Your task to perform on an android device: allow cookies in the chrome app Image 0: 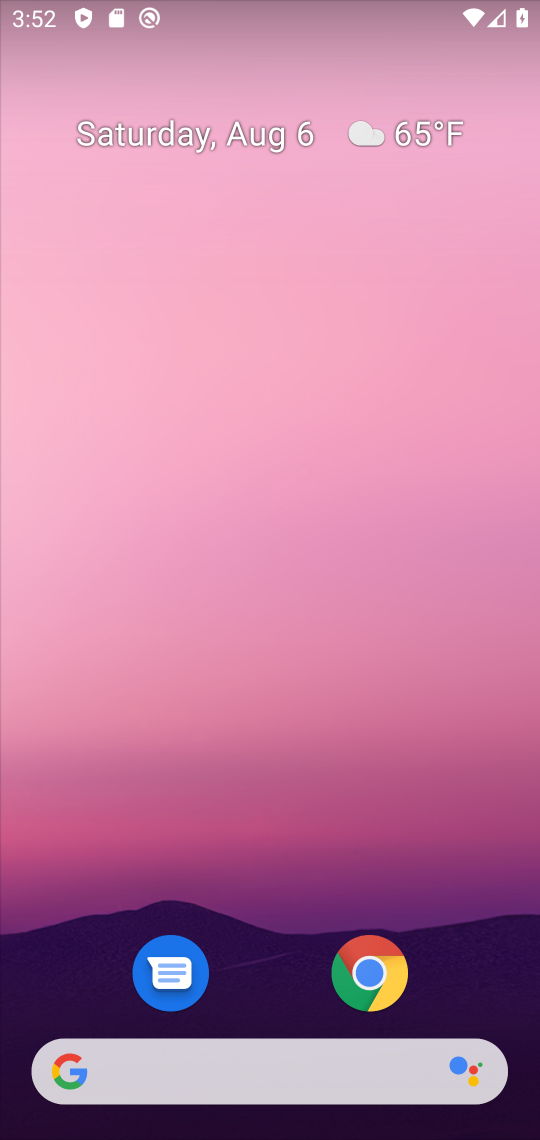
Step 0: drag from (454, 890) to (412, 158)
Your task to perform on an android device: allow cookies in the chrome app Image 1: 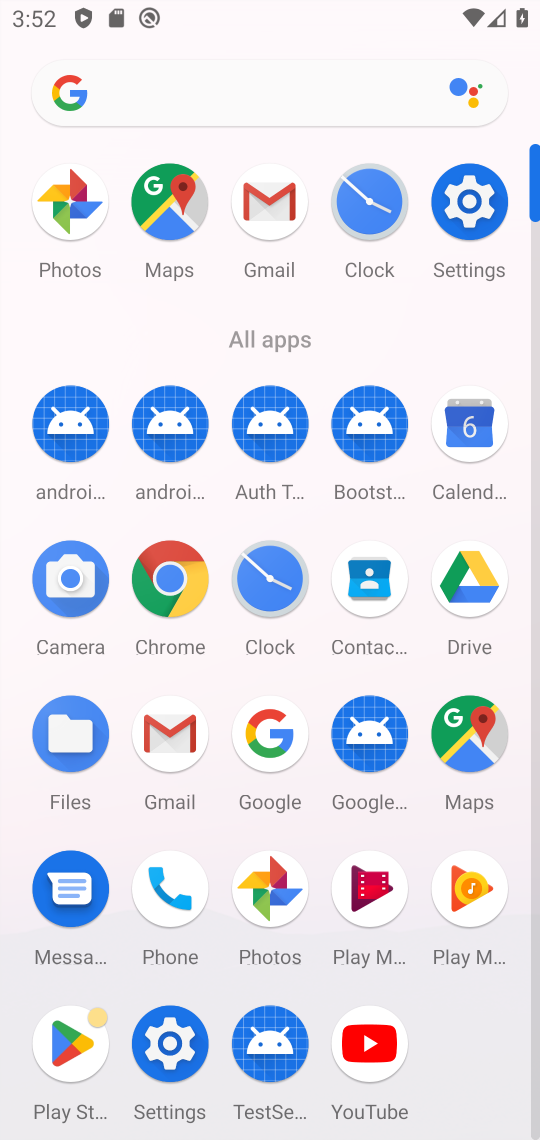
Step 1: click (173, 584)
Your task to perform on an android device: allow cookies in the chrome app Image 2: 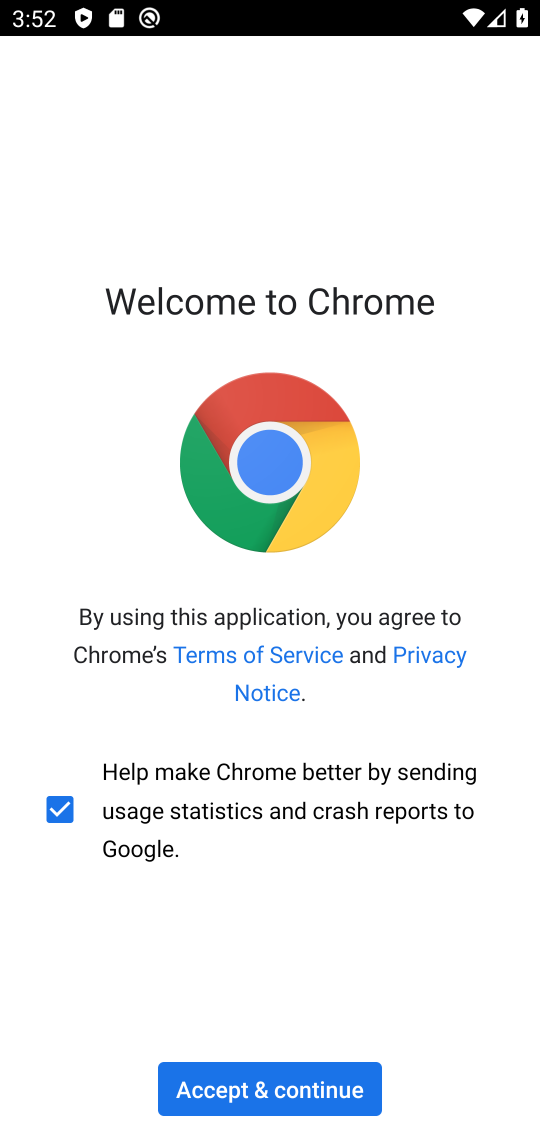
Step 2: click (291, 1094)
Your task to perform on an android device: allow cookies in the chrome app Image 3: 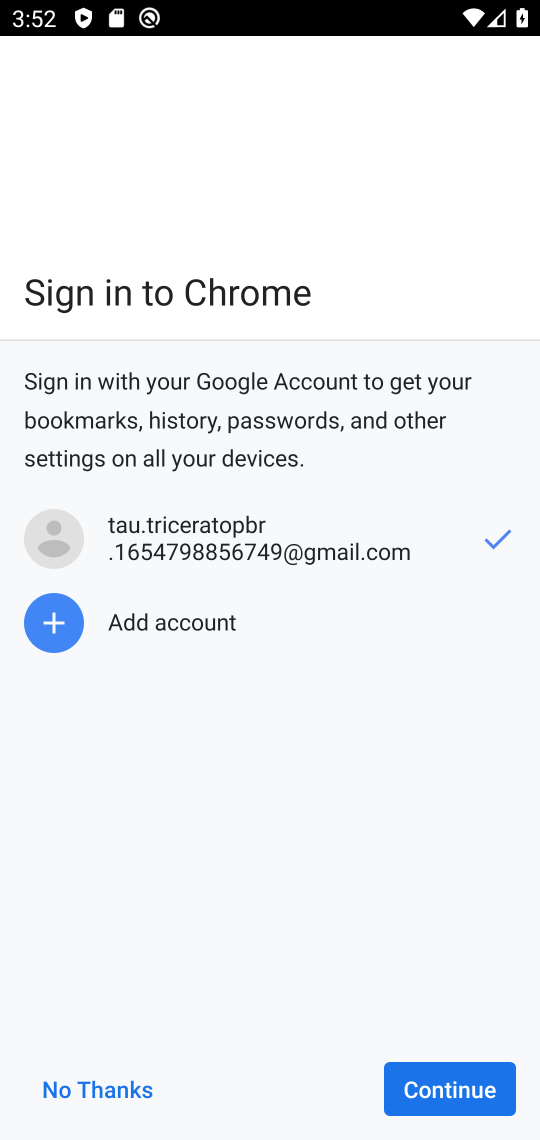
Step 3: click (433, 1113)
Your task to perform on an android device: allow cookies in the chrome app Image 4: 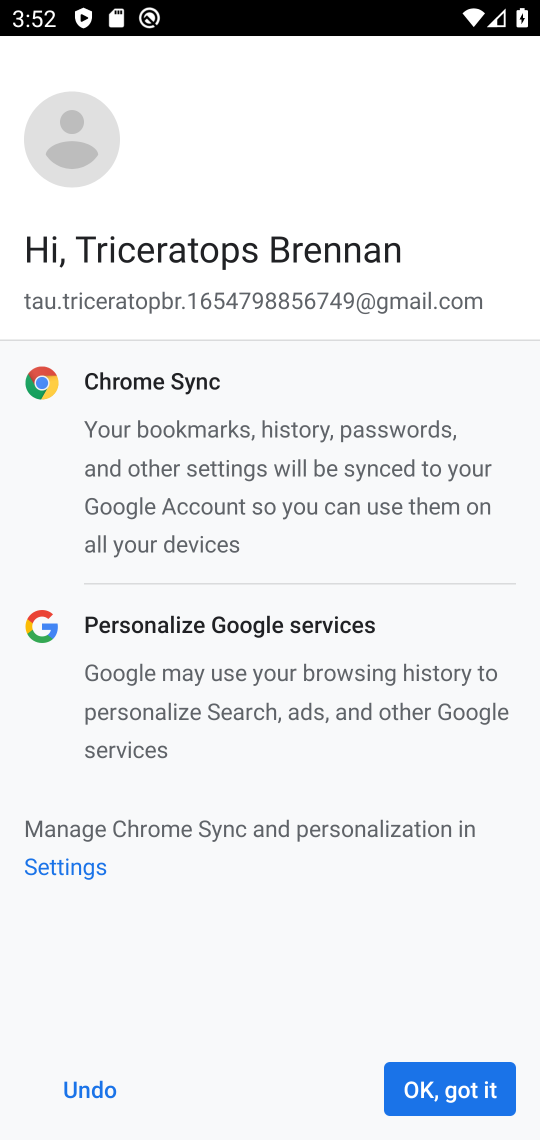
Step 4: click (438, 1097)
Your task to perform on an android device: allow cookies in the chrome app Image 5: 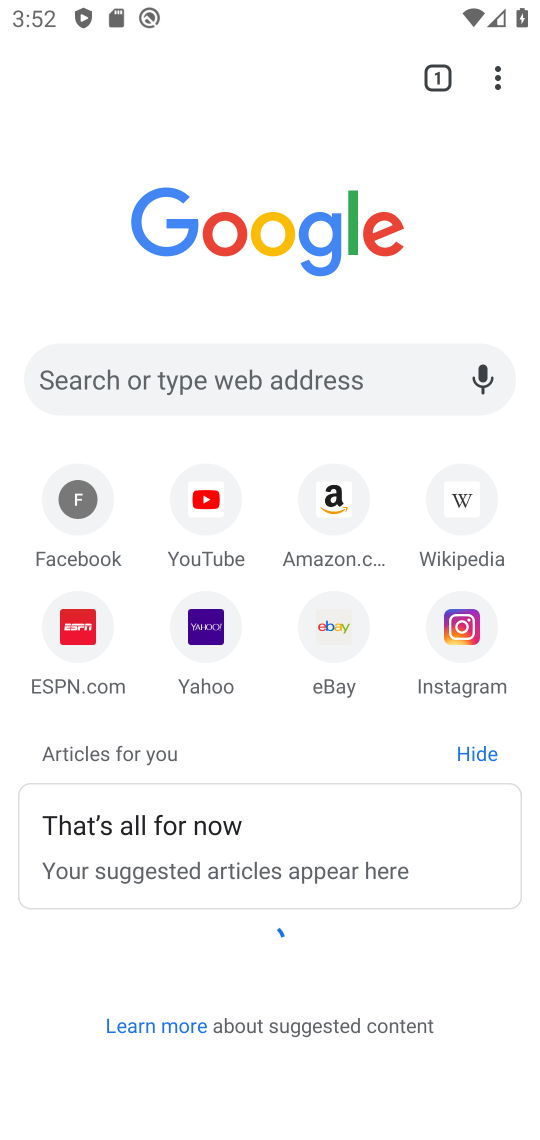
Step 5: drag from (507, 54) to (248, 658)
Your task to perform on an android device: allow cookies in the chrome app Image 6: 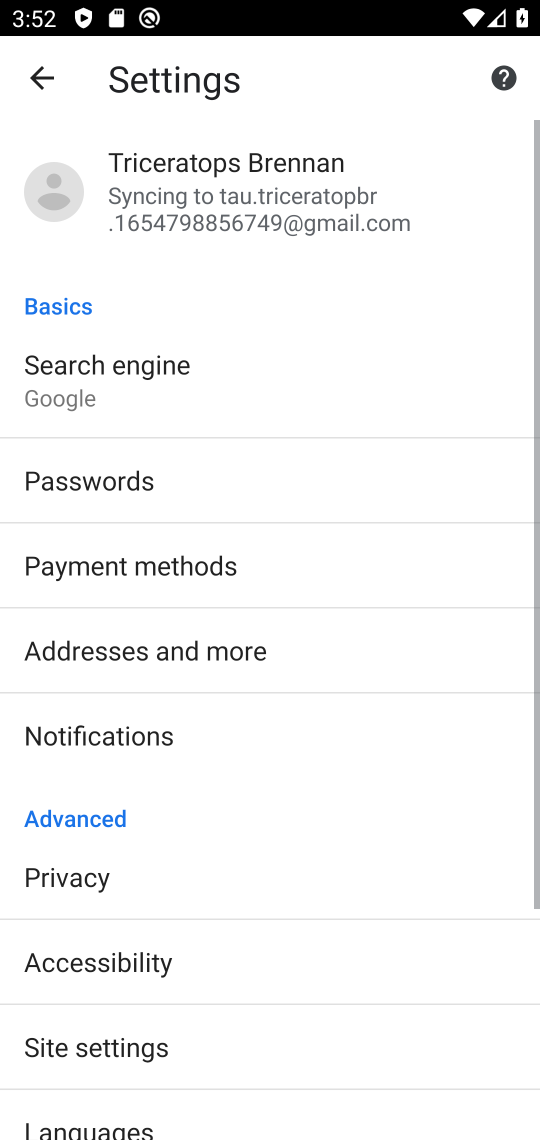
Step 6: drag from (349, 566) to (415, 28)
Your task to perform on an android device: allow cookies in the chrome app Image 7: 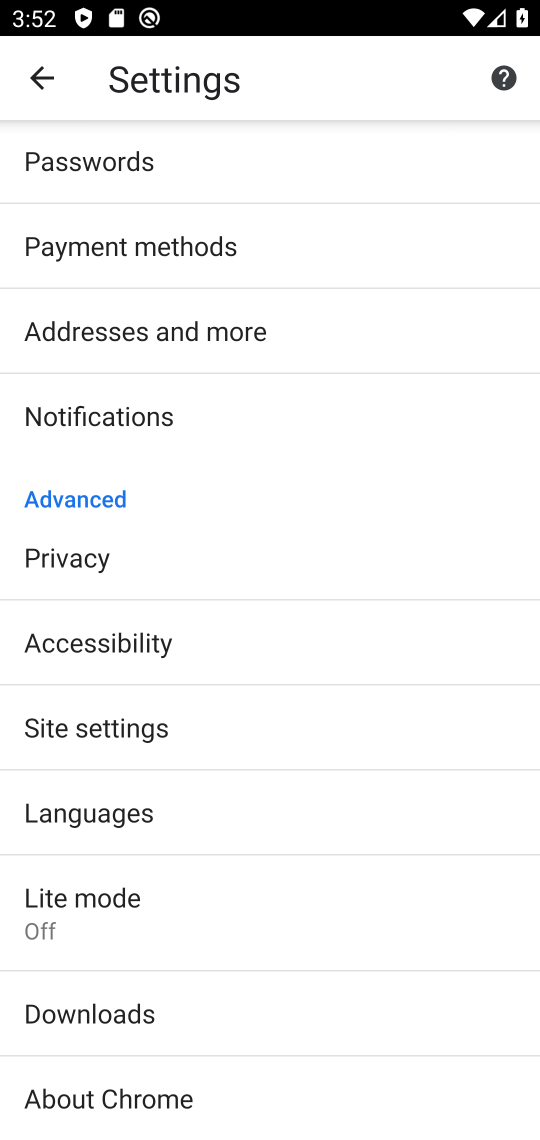
Step 7: click (95, 711)
Your task to perform on an android device: allow cookies in the chrome app Image 8: 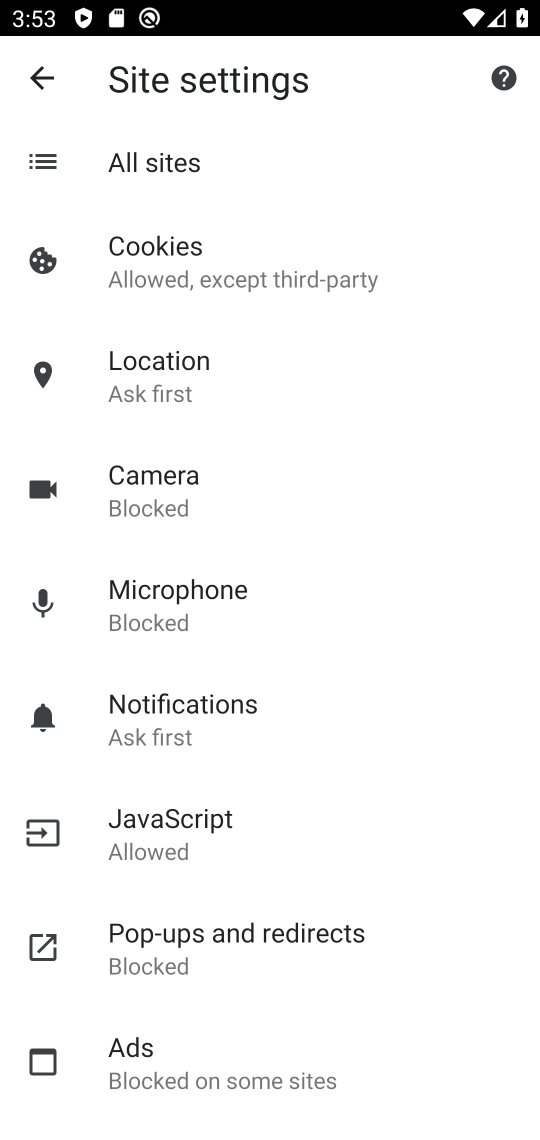
Step 8: click (221, 247)
Your task to perform on an android device: allow cookies in the chrome app Image 9: 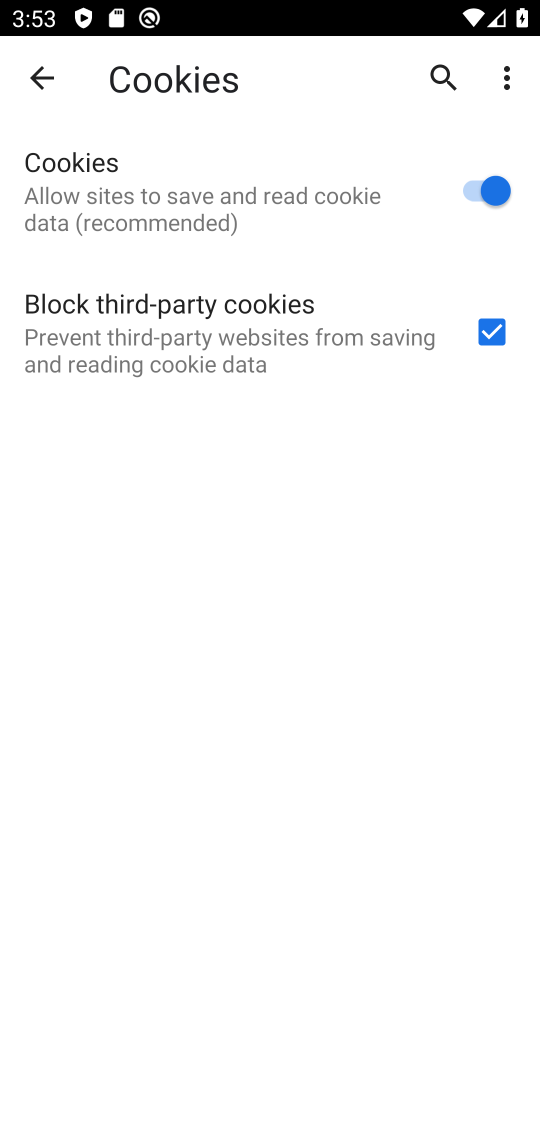
Step 9: task complete